Your task to perform on an android device: toggle javascript in the chrome app Image 0: 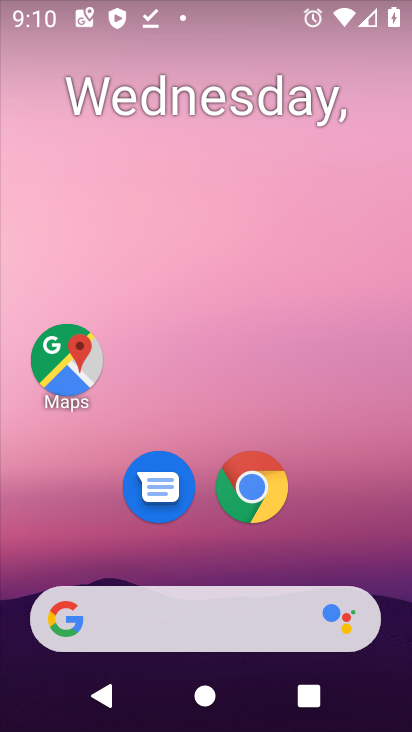
Step 0: drag from (255, 694) to (124, 23)
Your task to perform on an android device: toggle javascript in the chrome app Image 1: 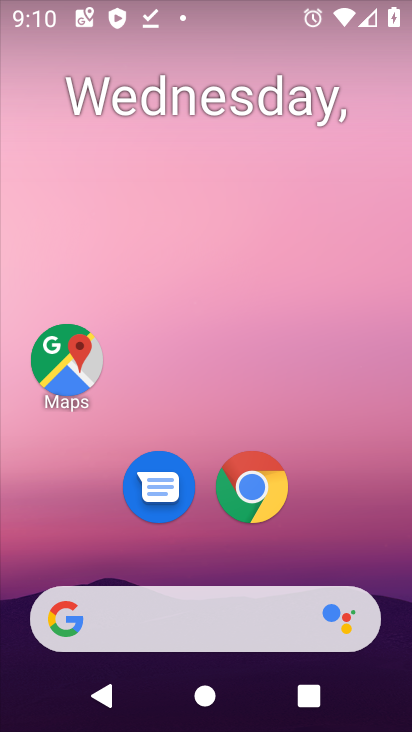
Step 1: drag from (283, 642) to (111, 6)
Your task to perform on an android device: toggle javascript in the chrome app Image 2: 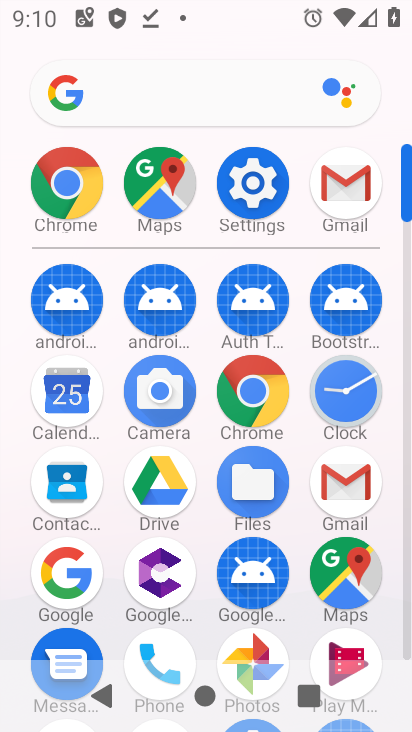
Step 2: drag from (269, 666) to (209, 213)
Your task to perform on an android device: toggle javascript in the chrome app Image 3: 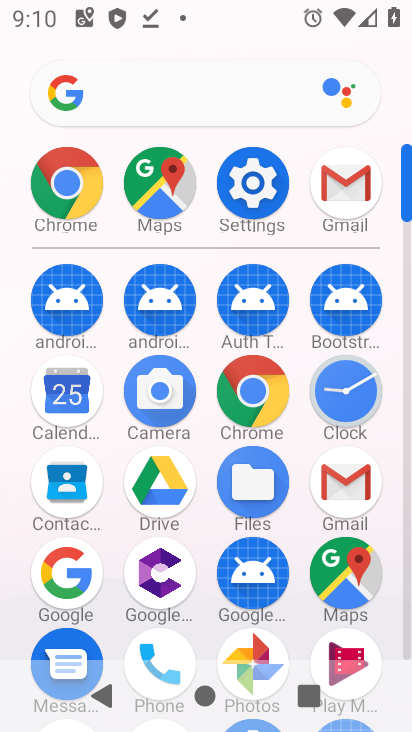
Step 3: click (250, 385)
Your task to perform on an android device: toggle javascript in the chrome app Image 4: 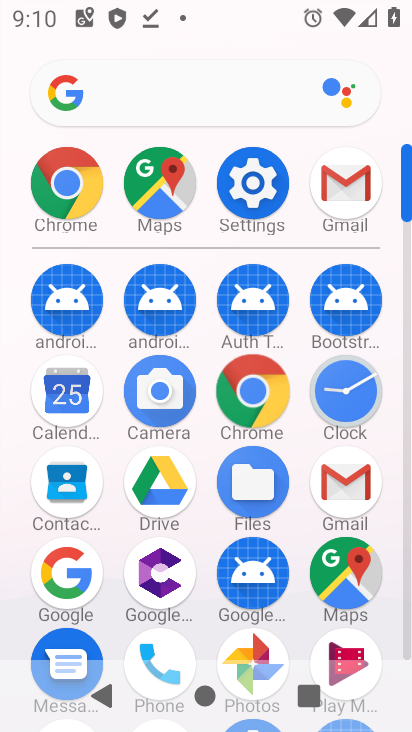
Step 4: click (251, 384)
Your task to perform on an android device: toggle javascript in the chrome app Image 5: 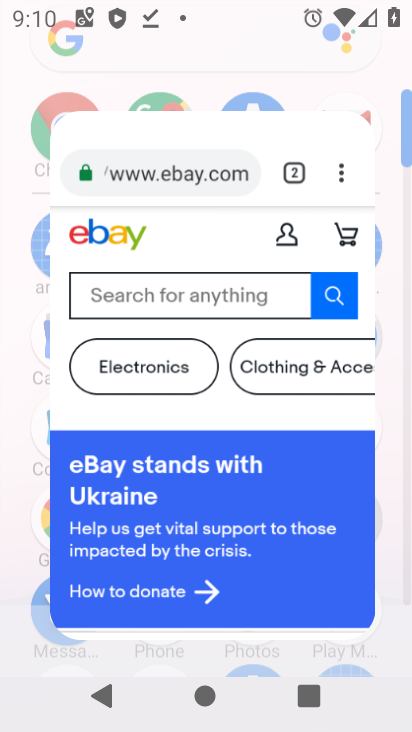
Step 5: click (251, 384)
Your task to perform on an android device: toggle javascript in the chrome app Image 6: 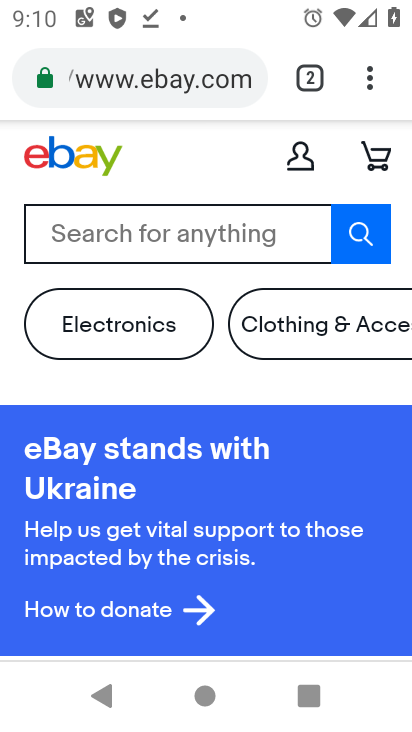
Step 6: drag from (373, 89) to (101, 545)
Your task to perform on an android device: toggle javascript in the chrome app Image 7: 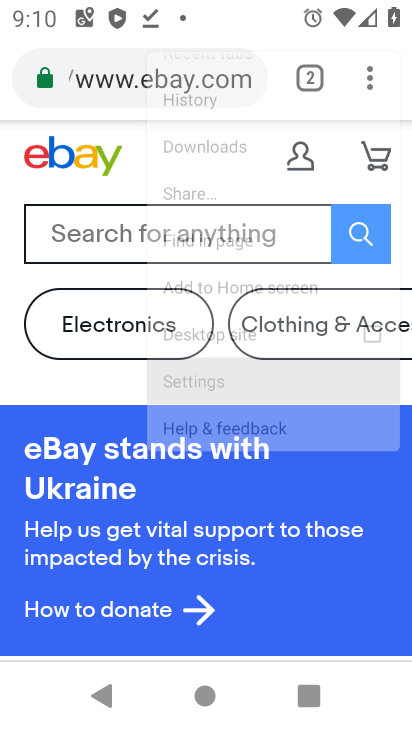
Step 7: click (99, 552)
Your task to perform on an android device: toggle javascript in the chrome app Image 8: 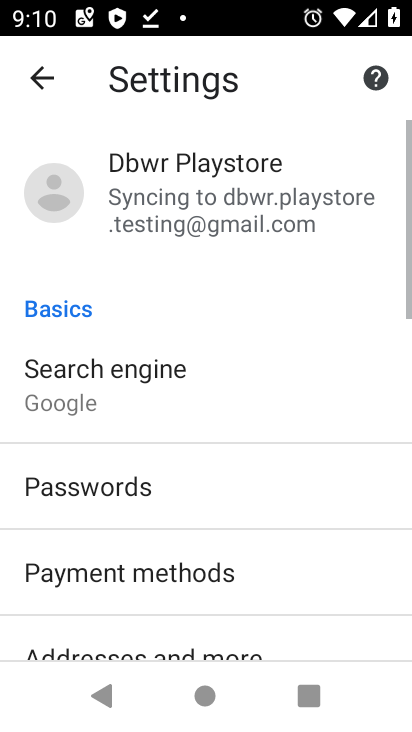
Step 8: drag from (156, 568) to (172, 99)
Your task to perform on an android device: toggle javascript in the chrome app Image 9: 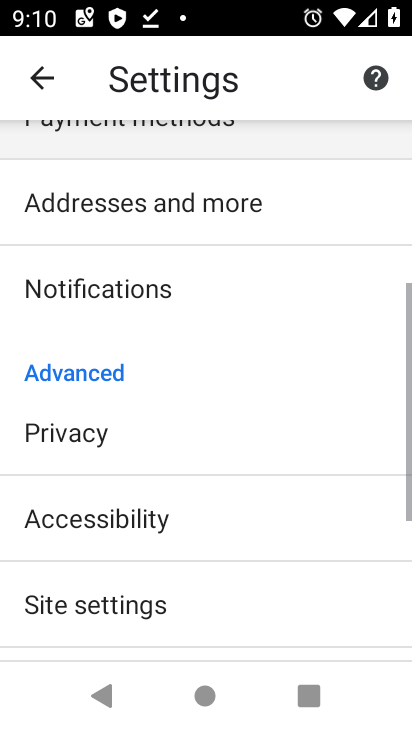
Step 9: drag from (210, 502) to (152, 204)
Your task to perform on an android device: toggle javascript in the chrome app Image 10: 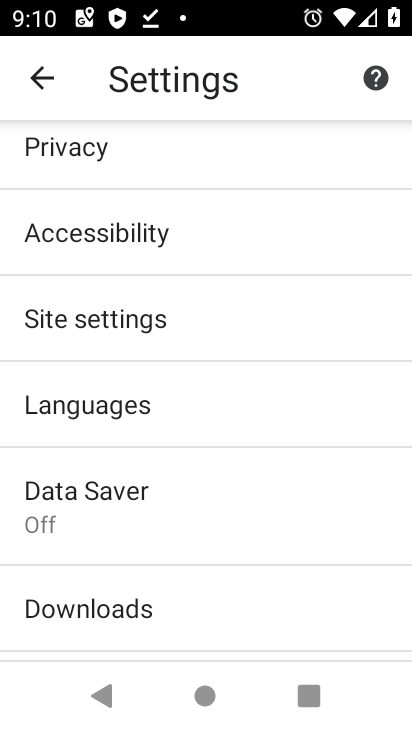
Step 10: click (81, 314)
Your task to perform on an android device: toggle javascript in the chrome app Image 11: 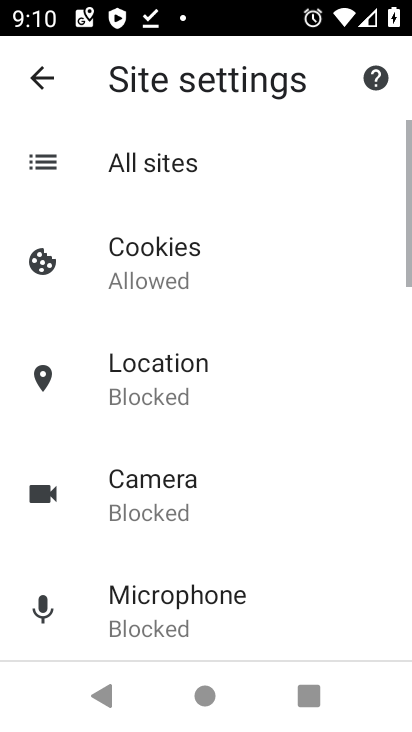
Step 11: drag from (198, 493) to (244, 7)
Your task to perform on an android device: toggle javascript in the chrome app Image 12: 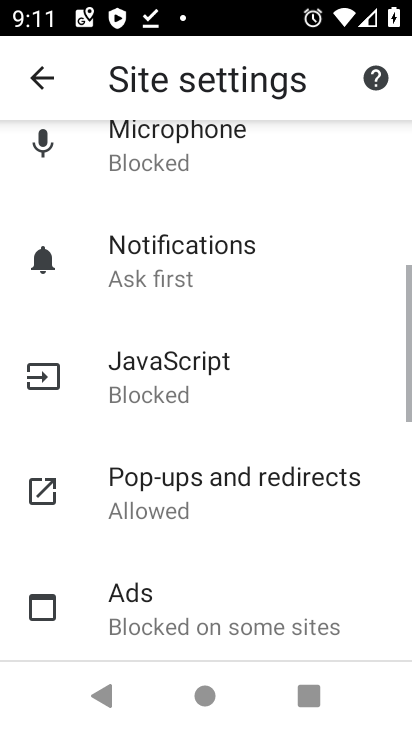
Step 12: drag from (263, 448) to (258, 142)
Your task to perform on an android device: toggle javascript in the chrome app Image 13: 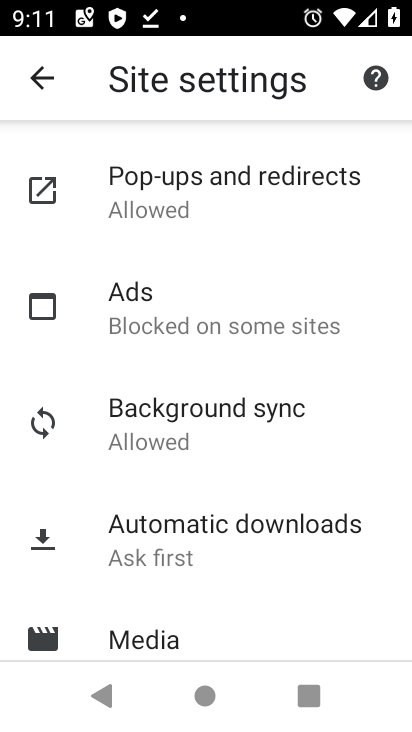
Step 13: drag from (130, 301) to (173, 537)
Your task to perform on an android device: toggle javascript in the chrome app Image 14: 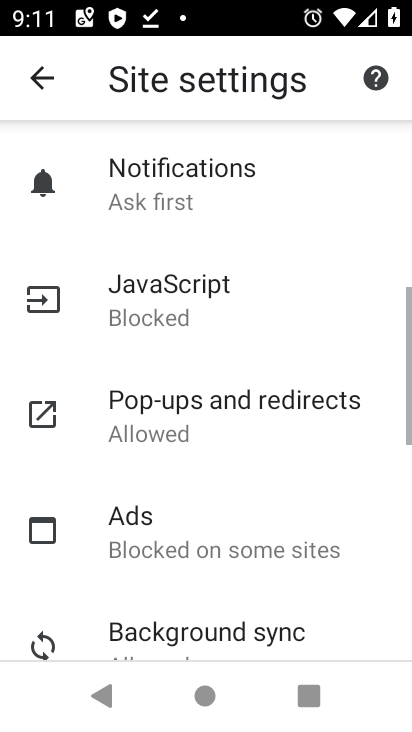
Step 14: drag from (150, 279) to (163, 422)
Your task to perform on an android device: toggle javascript in the chrome app Image 15: 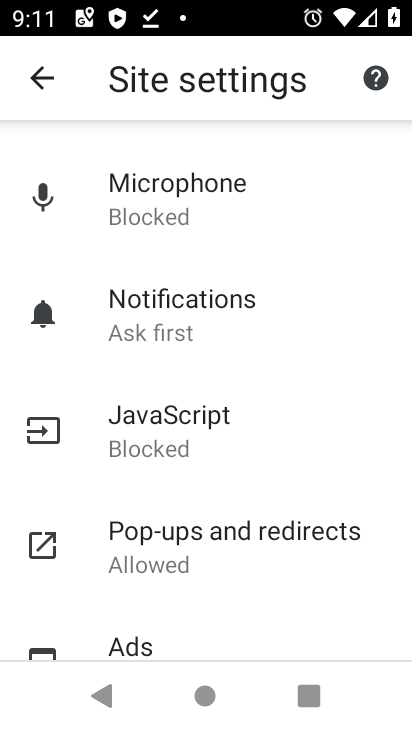
Step 15: click (150, 434)
Your task to perform on an android device: toggle javascript in the chrome app Image 16: 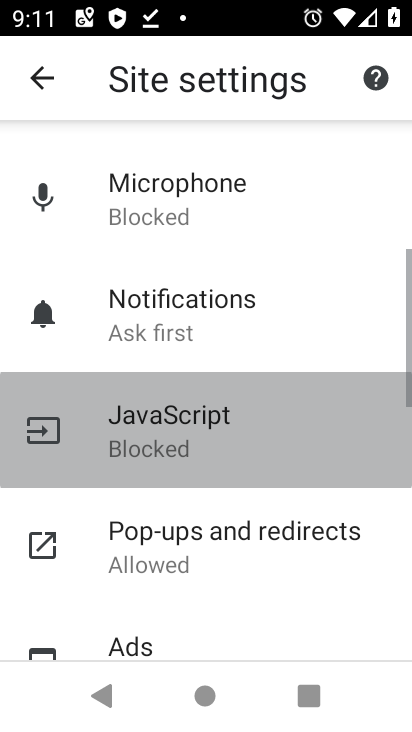
Step 16: click (150, 434)
Your task to perform on an android device: toggle javascript in the chrome app Image 17: 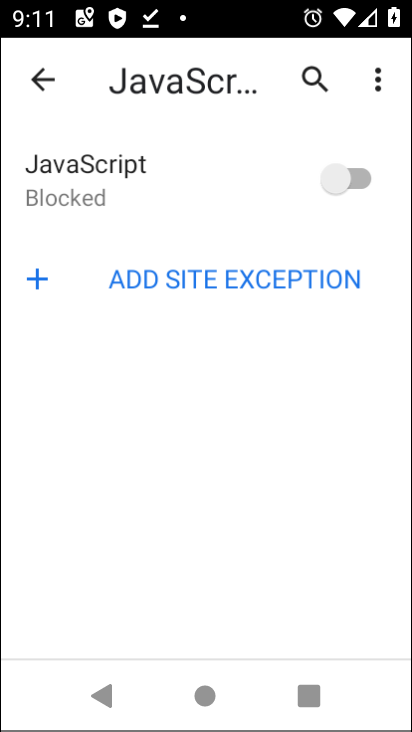
Step 17: click (150, 434)
Your task to perform on an android device: toggle javascript in the chrome app Image 18: 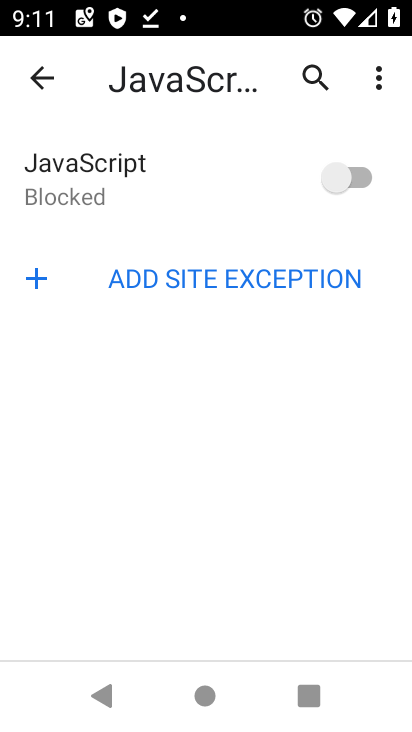
Step 18: click (150, 434)
Your task to perform on an android device: toggle javascript in the chrome app Image 19: 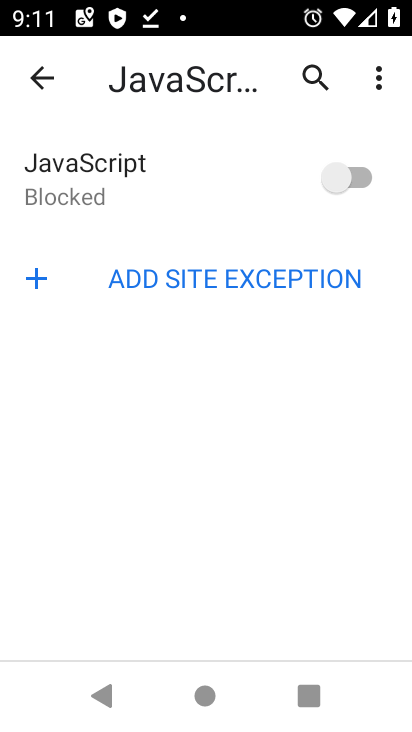
Step 19: click (344, 173)
Your task to perform on an android device: toggle javascript in the chrome app Image 20: 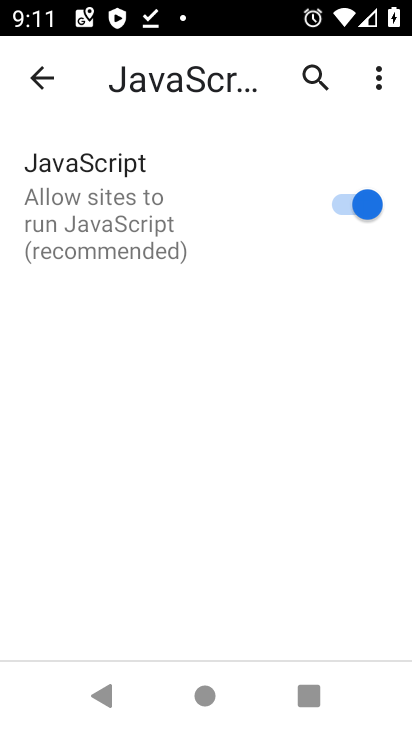
Step 20: task complete